Your task to perform on an android device: Go to accessibility settings Image 0: 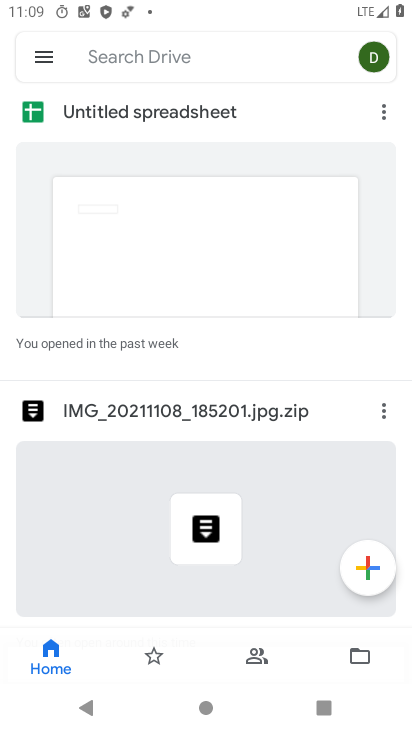
Step 0: press home button
Your task to perform on an android device: Go to accessibility settings Image 1: 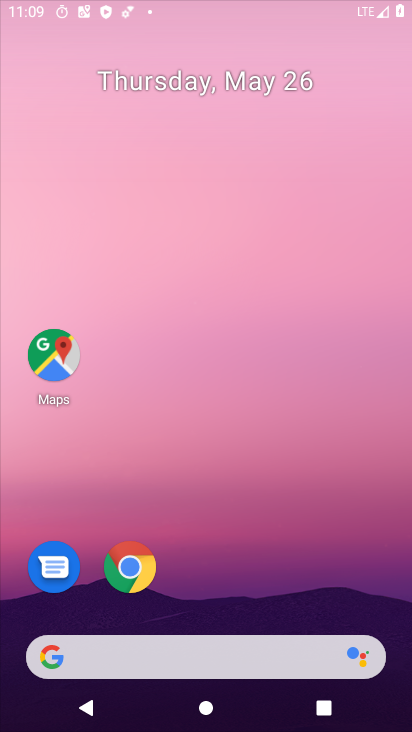
Step 1: drag from (281, 702) to (266, 179)
Your task to perform on an android device: Go to accessibility settings Image 2: 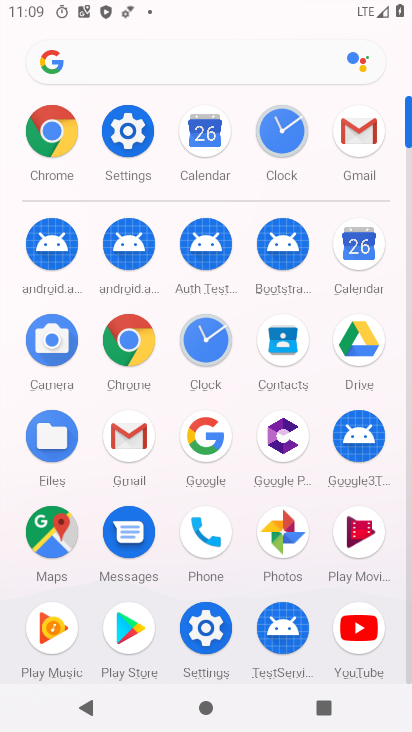
Step 2: click (111, 111)
Your task to perform on an android device: Go to accessibility settings Image 3: 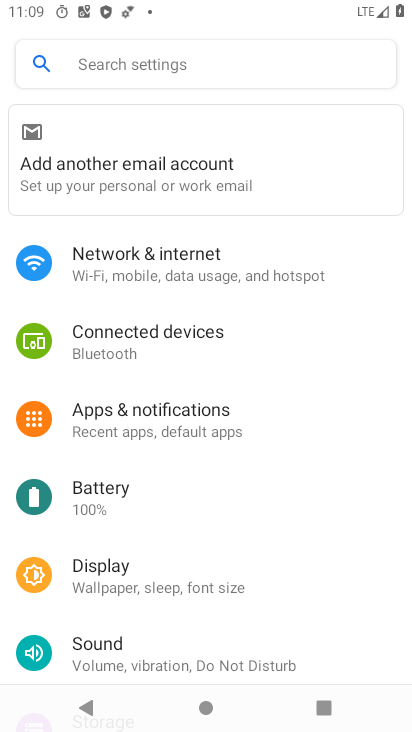
Step 3: click (30, 55)
Your task to perform on an android device: Go to accessibility settings Image 4: 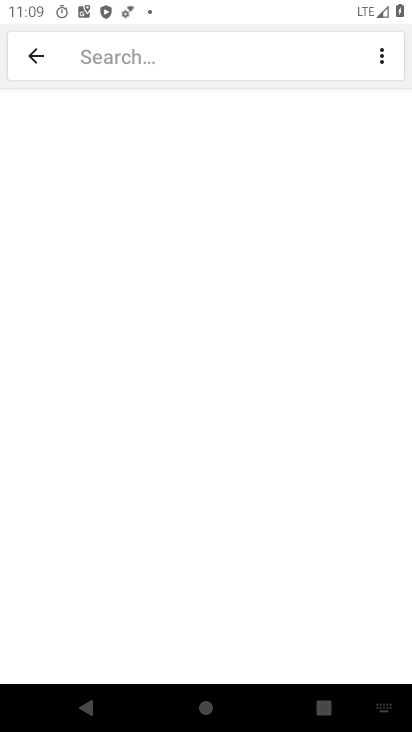
Step 4: click (42, 56)
Your task to perform on an android device: Go to accessibility settings Image 5: 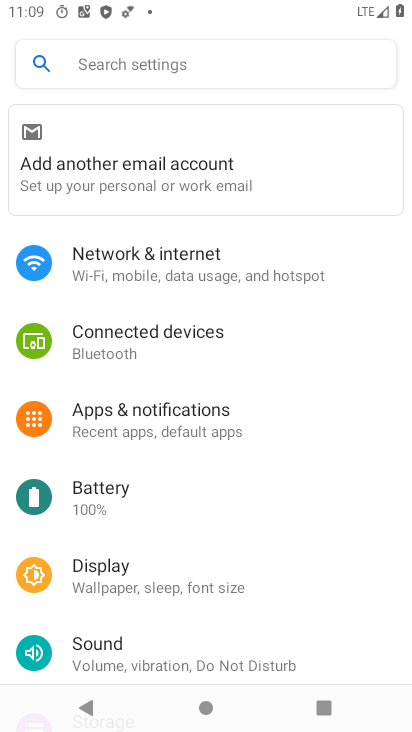
Step 5: drag from (254, 622) to (237, 113)
Your task to perform on an android device: Go to accessibility settings Image 6: 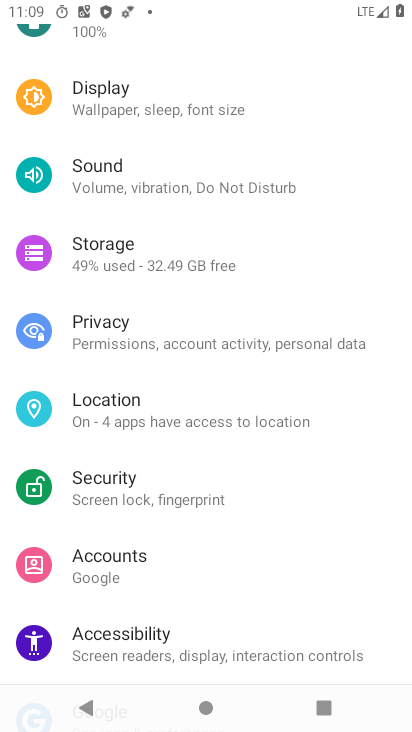
Step 6: click (173, 634)
Your task to perform on an android device: Go to accessibility settings Image 7: 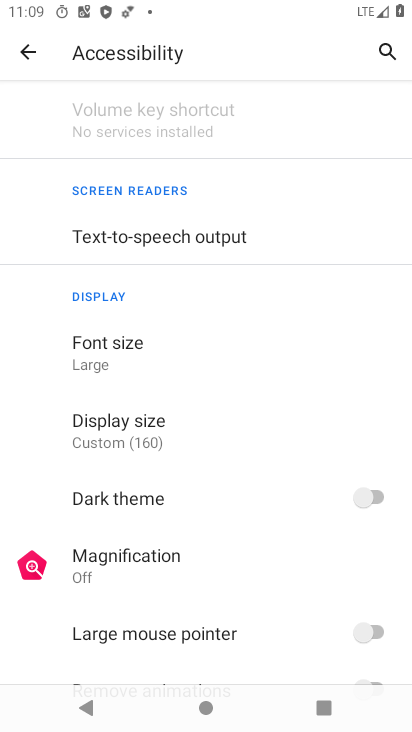
Step 7: task complete